Your task to perform on an android device: turn on priority inbox in the gmail app Image 0: 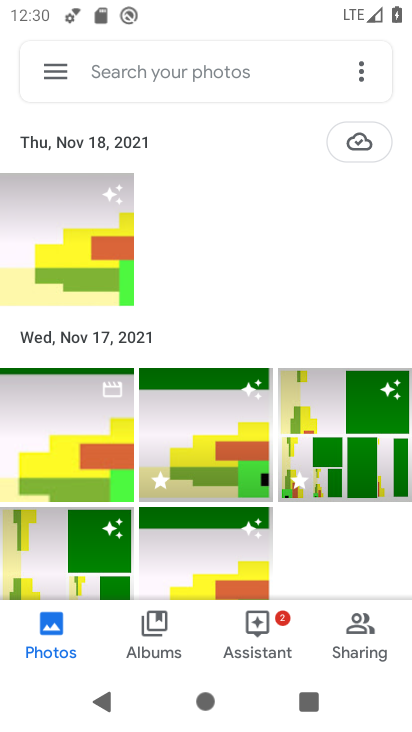
Step 0: press home button
Your task to perform on an android device: turn on priority inbox in the gmail app Image 1: 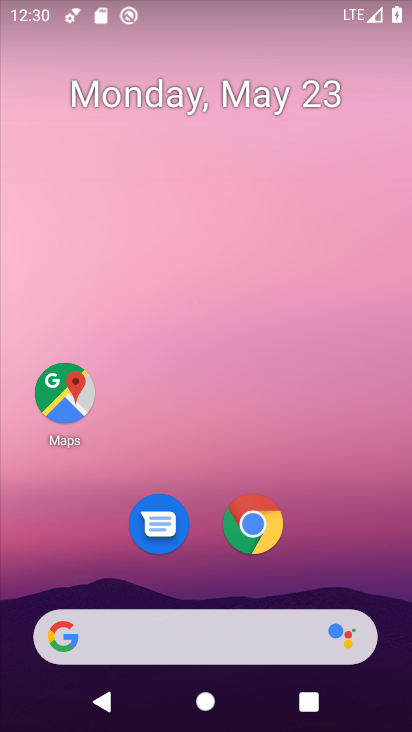
Step 1: drag from (285, 471) to (302, 43)
Your task to perform on an android device: turn on priority inbox in the gmail app Image 2: 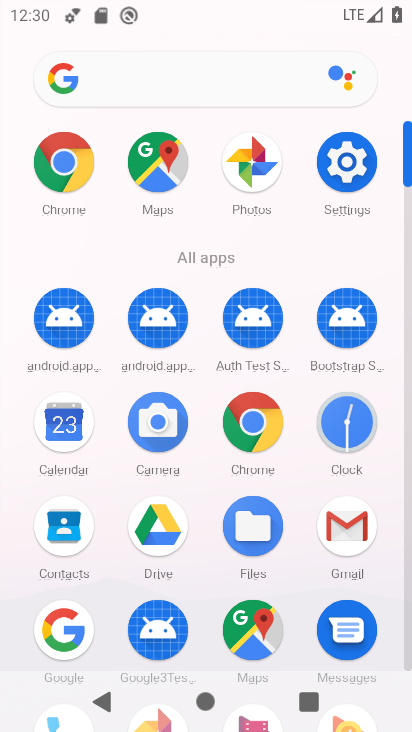
Step 2: click (343, 525)
Your task to perform on an android device: turn on priority inbox in the gmail app Image 3: 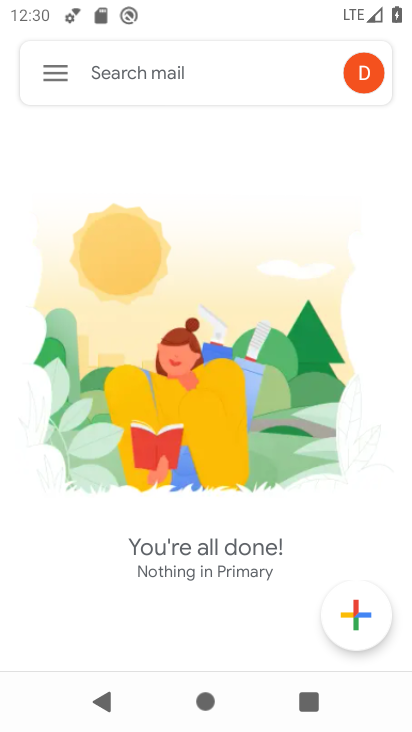
Step 3: click (49, 55)
Your task to perform on an android device: turn on priority inbox in the gmail app Image 4: 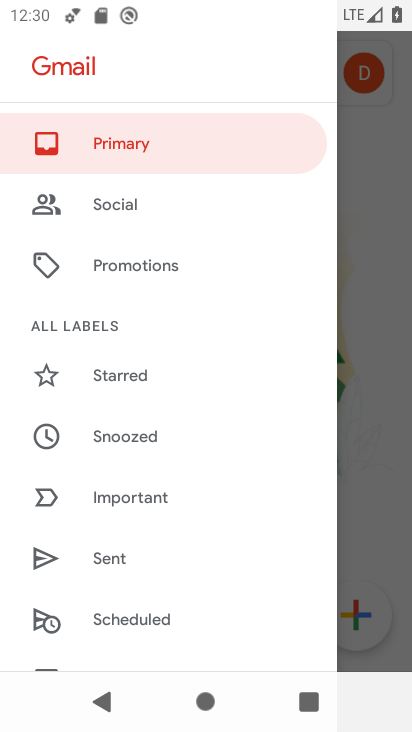
Step 4: drag from (143, 559) to (200, 103)
Your task to perform on an android device: turn on priority inbox in the gmail app Image 5: 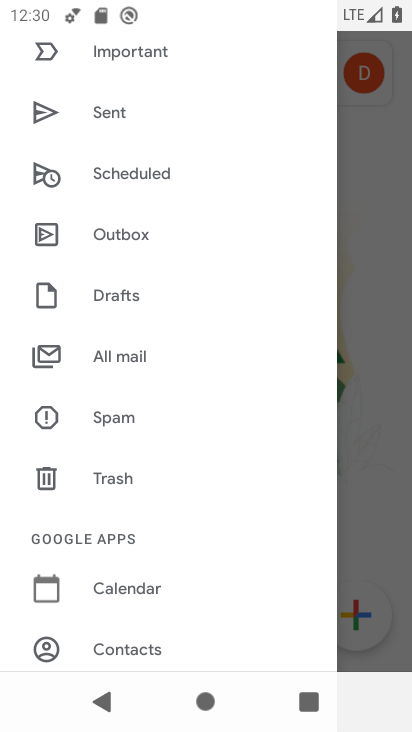
Step 5: drag from (191, 472) to (209, 156)
Your task to perform on an android device: turn on priority inbox in the gmail app Image 6: 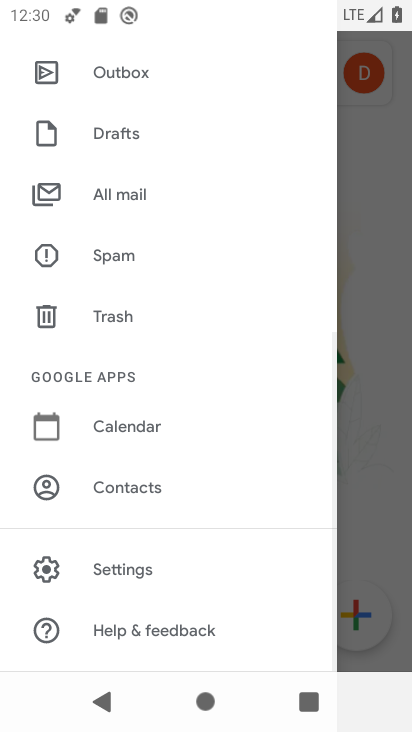
Step 6: click (161, 569)
Your task to perform on an android device: turn on priority inbox in the gmail app Image 7: 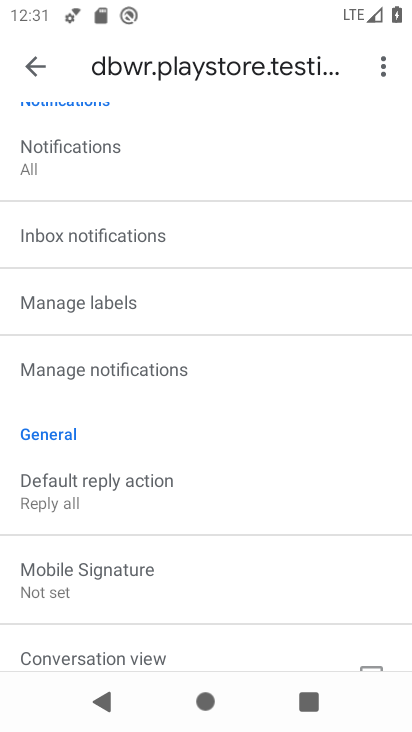
Step 7: drag from (266, 444) to (276, 113)
Your task to perform on an android device: turn on priority inbox in the gmail app Image 8: 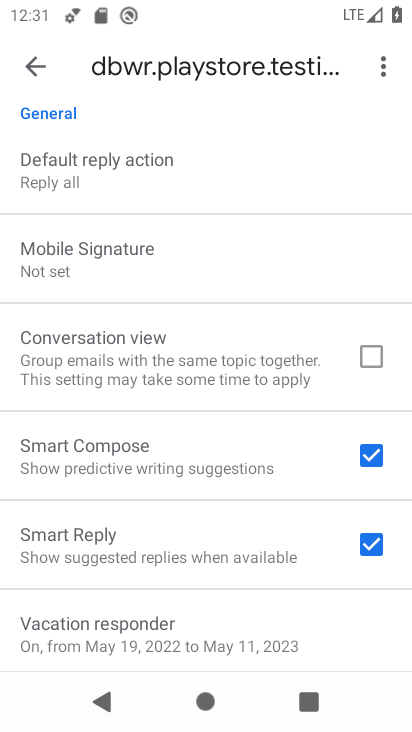
Step 8: drag from (220, 477) to (227, 149)
Your task to perform on an android device: turn on priority inbox in the gmail app Image 9: 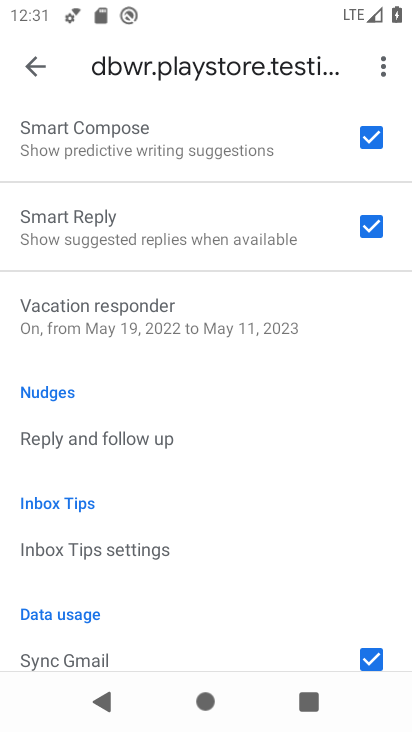
Step 9: drag from (183, 498) to (238, 618)
Your task to perform on an android device: turn on priority inbox in the gmail app Image 10: 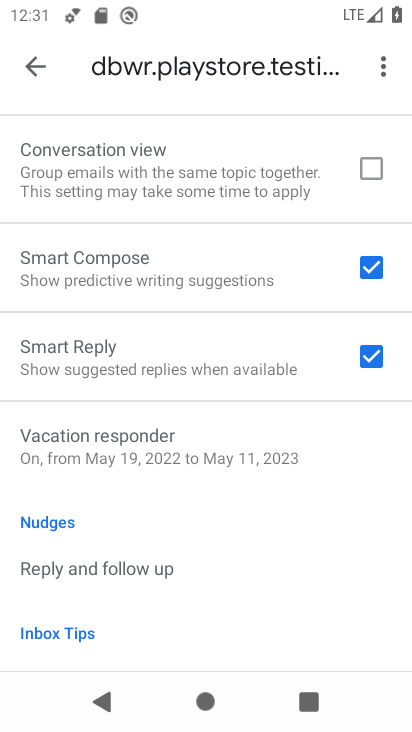
Step 10: drag from (185, 218) to (186, 665)
Your task to perform on an android device: turn on priority inbox in the gmail app Image 11: 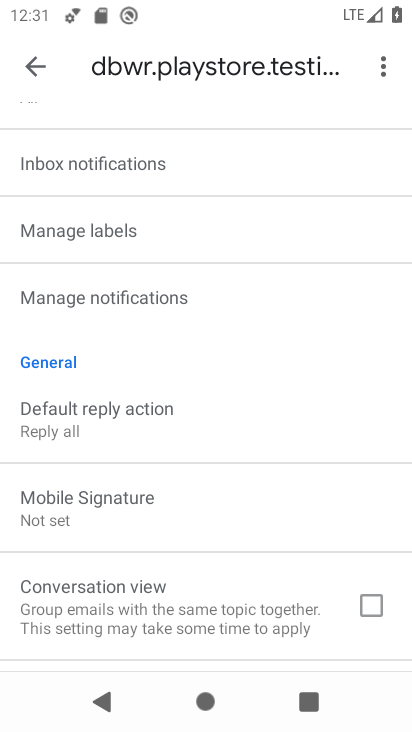
Step 11: drag from (194, 197) to (202, 630)
Your task to perform on an android device: turn on priority inbox in the gmail app Image 12: 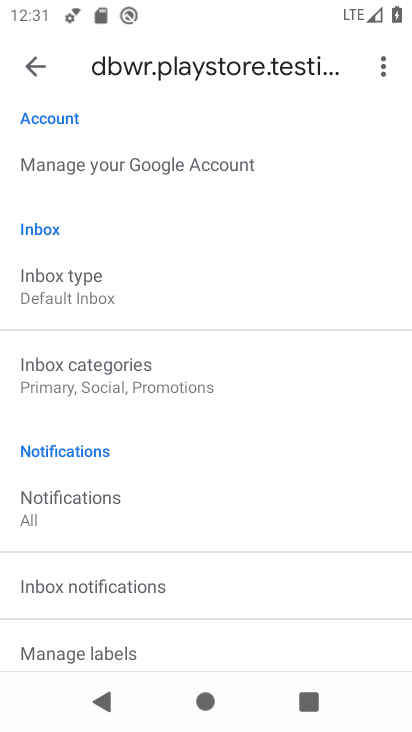
Step 12: click (89, 282)
Your task to perform on an android device: turn on priority inbox in the gmail app Image 13: 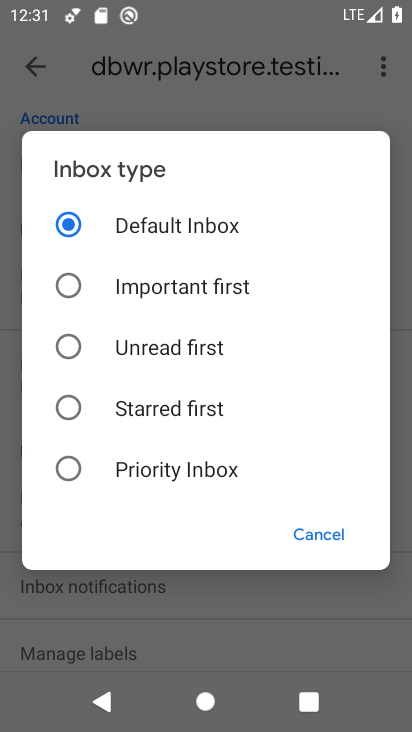
Step 13: click (62, 464)
Your task to perform on an android device: turn on priority inbox in the gmail app Image 14: 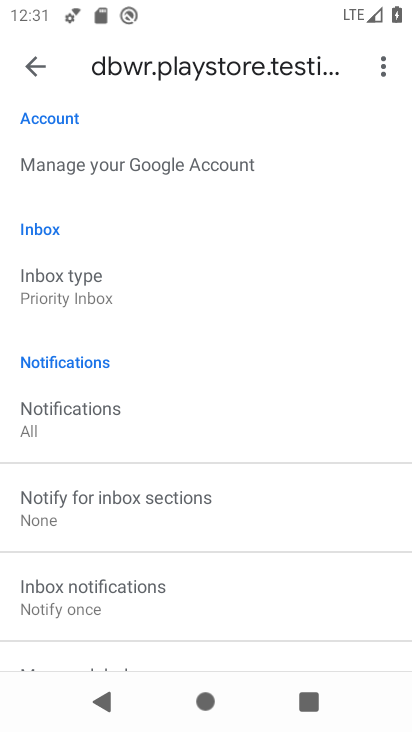
Step 14: task complete